Your task to perform on an android device: see sites visited before in the chrome app Image 0: 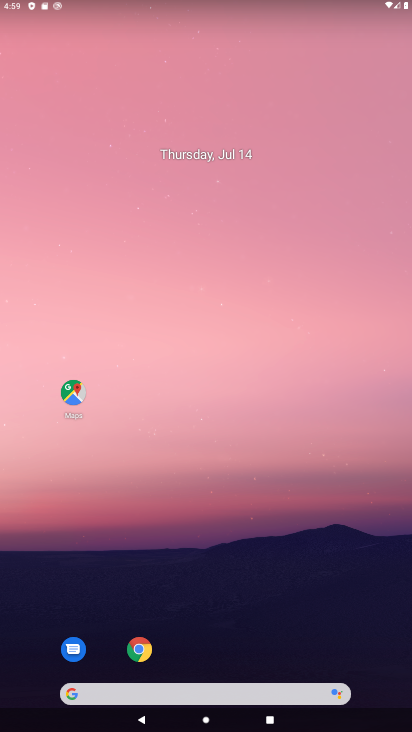
Step 0: click (141, 652)
Your task to perform on an android device: see sites visited before in the chrome app Image 1: 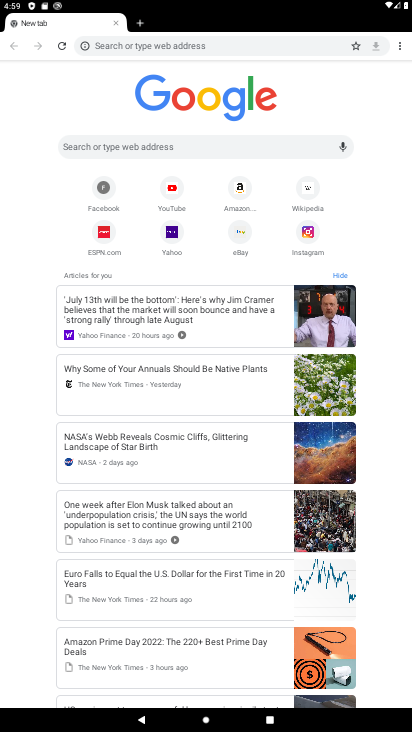
Step 1: task complete